Your task to perform on an android device: find snoozed emails in the gmail app Image 0: 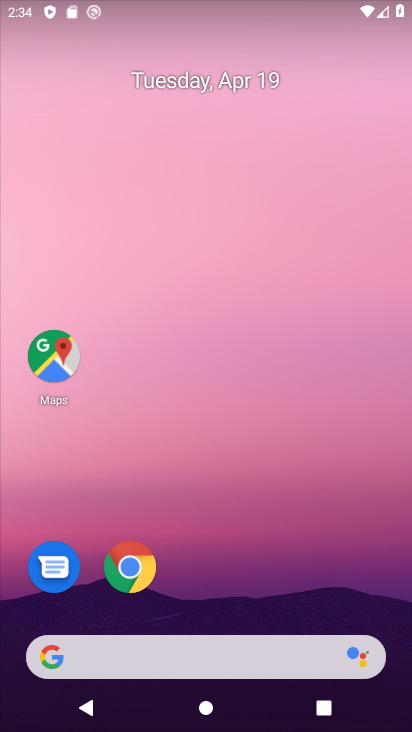
Step 0: drag from (347, 563) to (291, 244)
Your task to perform on an android device: find snoozed emails in the gmail app Image 1: 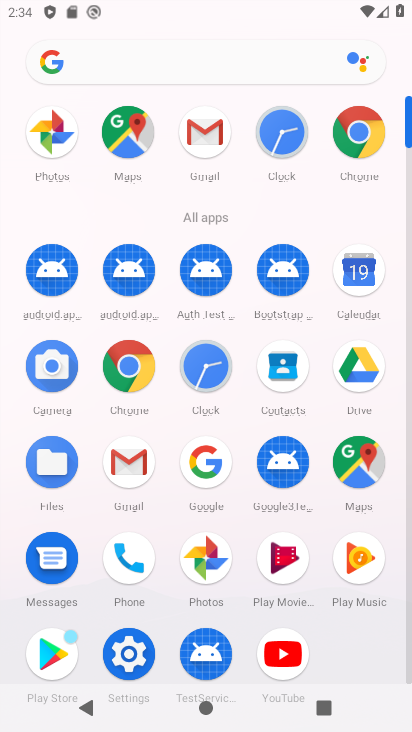
Step 1: click (238, 127)
Your task to perform on an android device: find snoozed emails in the gmail app Image 2: 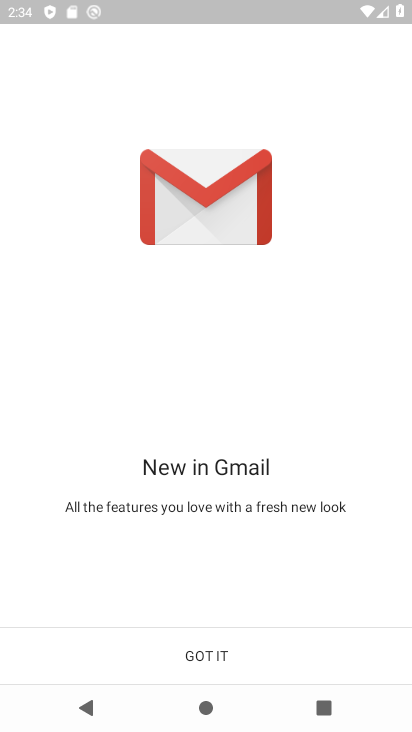
Step 2: click (230, 662)
Your task to perform on an android device: find snoozed emails in the gmail app Image 3: 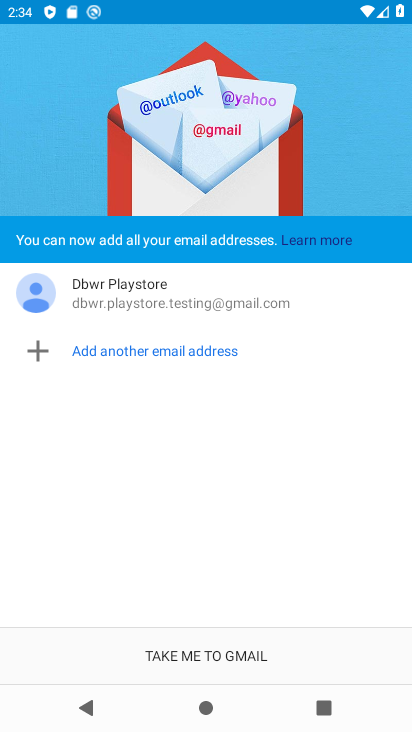
Step 3: click (230, 662)
Your task to perform on an android device: find snoozed emails in the gmail app Image 4: 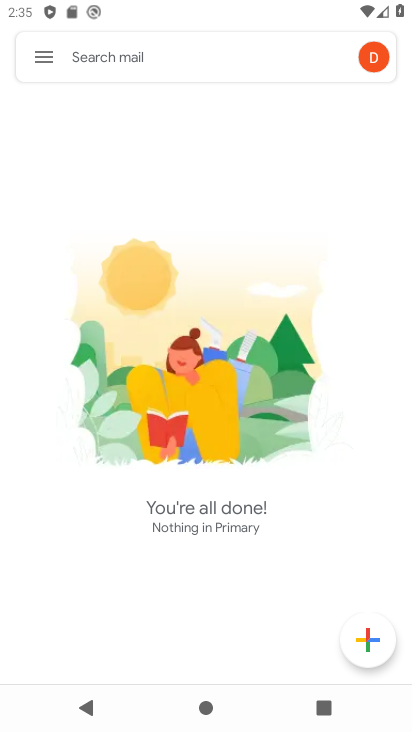
Step 4: click (41, 65)
Your task to perform on an android device: find snoozed emails in the gmail app Image 5: 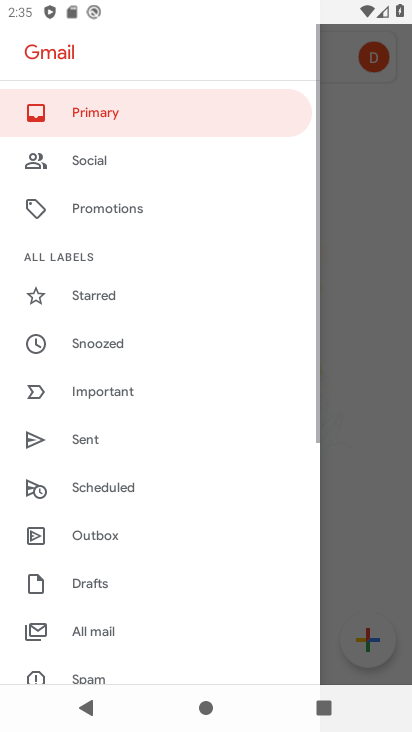
Step 5: drag from (146, 338) to (189, 548)
Your task to perform on an android device: find snoozed emails in the gmail app Image 6: 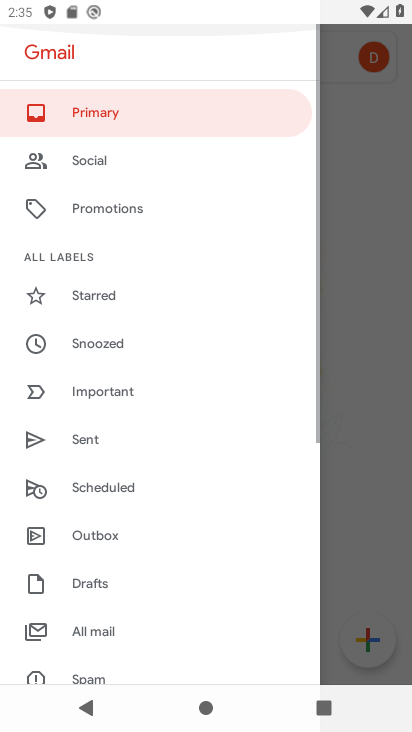
Step 6: drag from (186, 604) to (167, 264)
Your task to perform on an android device: find snoozed emails in the gmail app Image 7: 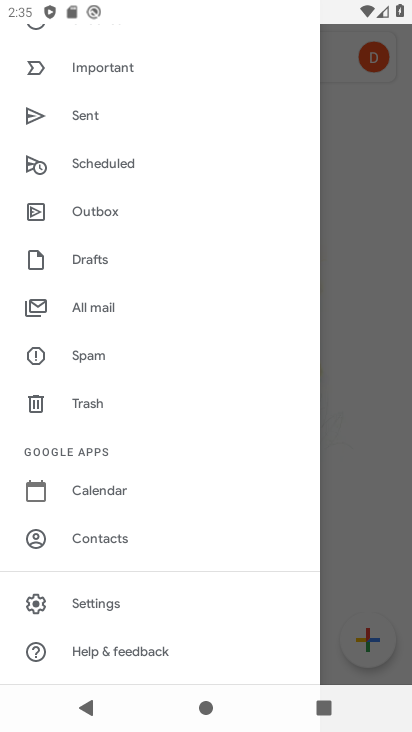
Step 7: click (83, 313)
Your task to perform on an android device: find snoozed emails in the gmail app Image 8: 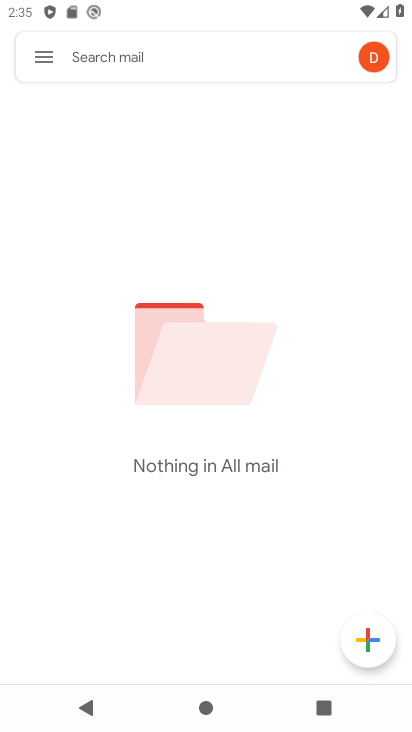
Step 8: task complete